Your task to perform on an android device: all mails in gmail Image 0: 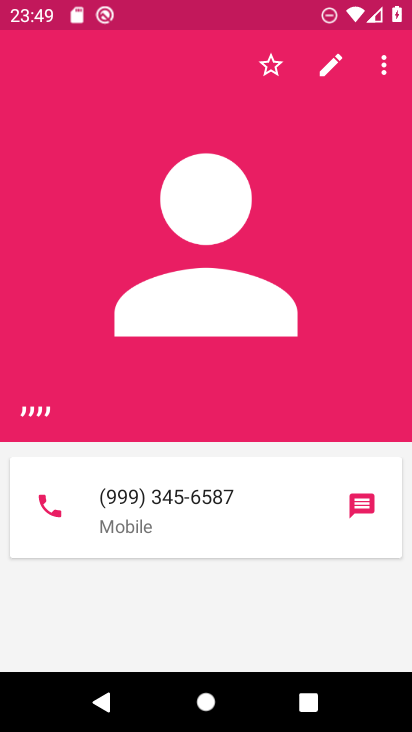
Step 0: press home button
Your task to perform on an android device: all mails in gmail Image 1: 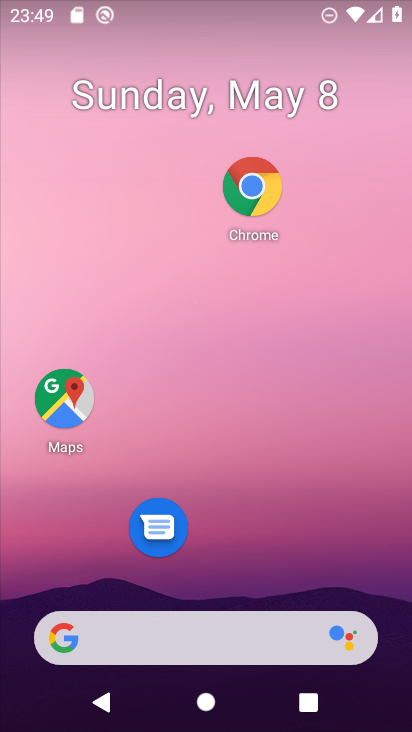
Step 1: drag from (307, 525) to (351, 293)
Your task to perform on an android device: all mails in gmail Image 2: 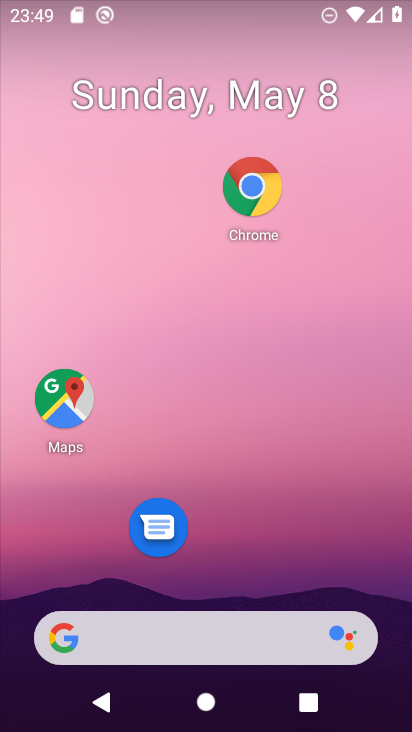
Step 2: drag from (310, 541) to (322, 209)
Your task to perform on an android device: all mails in gmail Image 3: 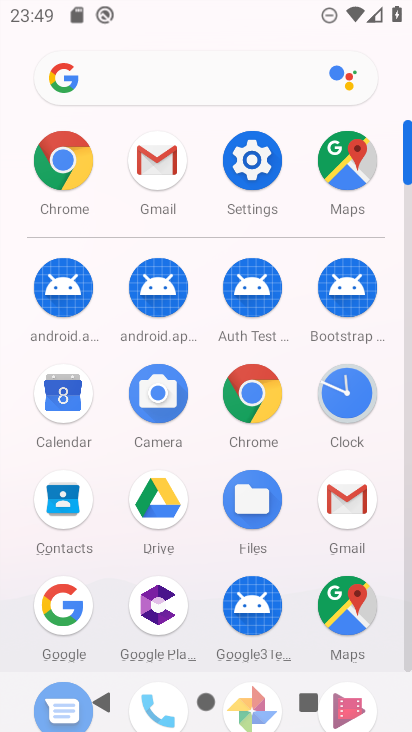
Step 3: click (338, 501)
Your task to perform on an android device: all mails in gmail Image 4: 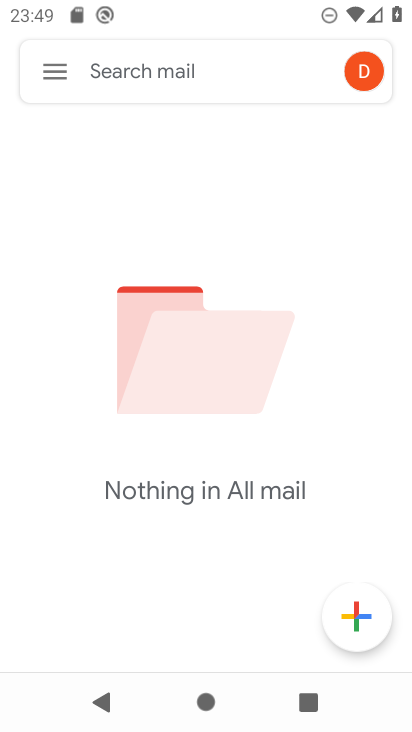
Step 4: click (54, 67)
Your task to perform on an android device: all mails in gmail Image 5: 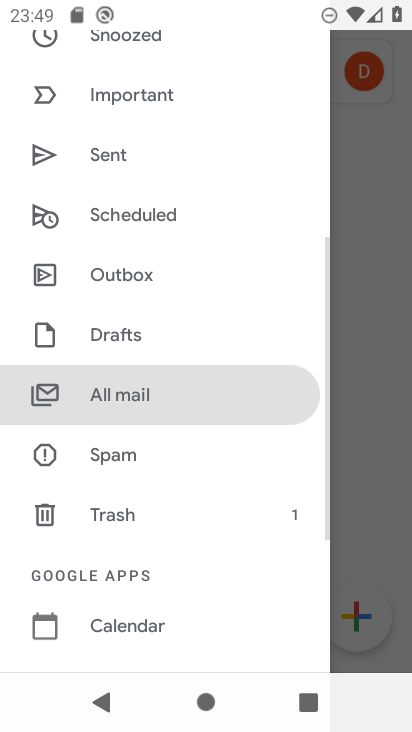
Step 5: click (135, 405)
Your task to perform on an android device: all mails in gmail Image 6: 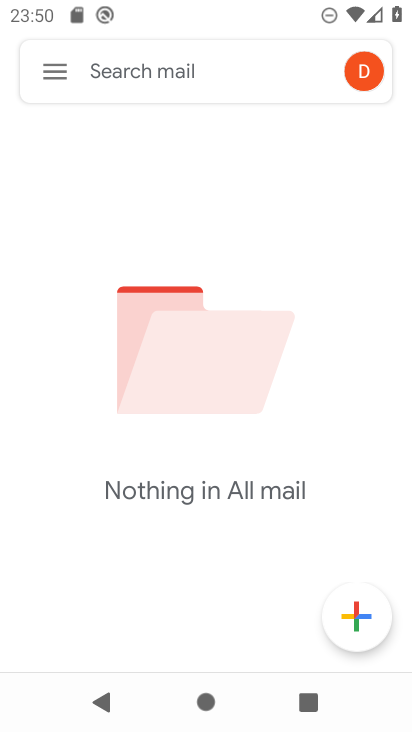
Step 6: task complete